Your task to perform on an android device: delete location history Image 0: 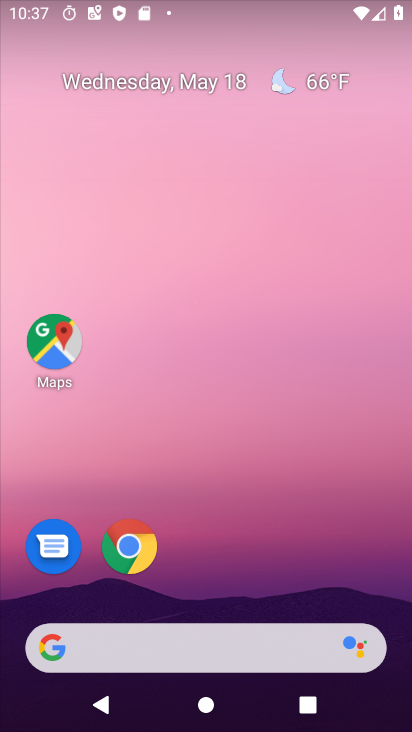
Step 0: click (47, 361)
Your task to perform on an android device: delete location history Image 1: 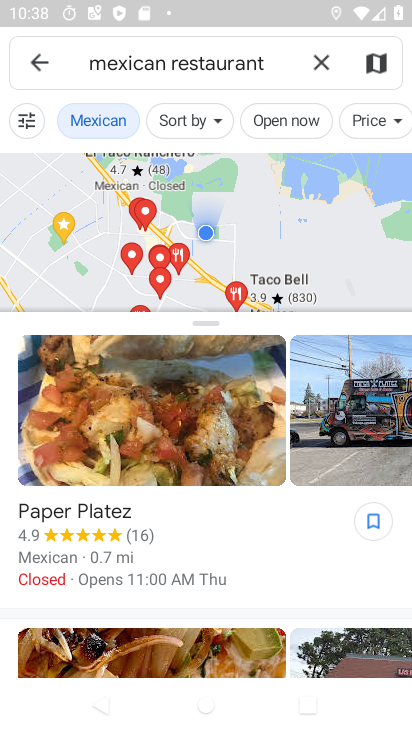
Step 1: click (29, 58)
Your task to perform on an android device: delete location history Image 2: 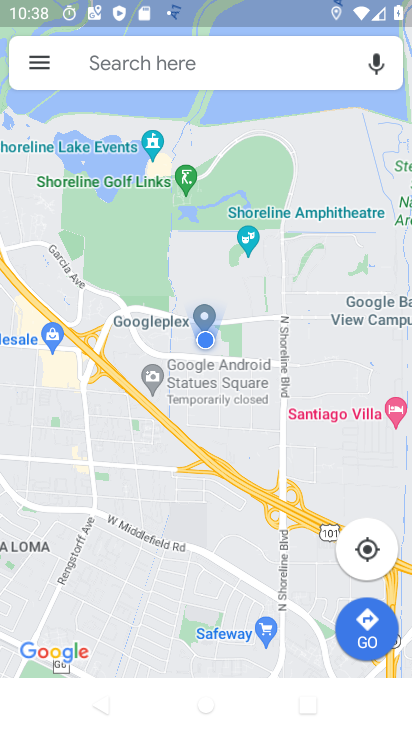
Step 2: click (29, 58)
Your task to perform on an android device: delete location history Image 3: 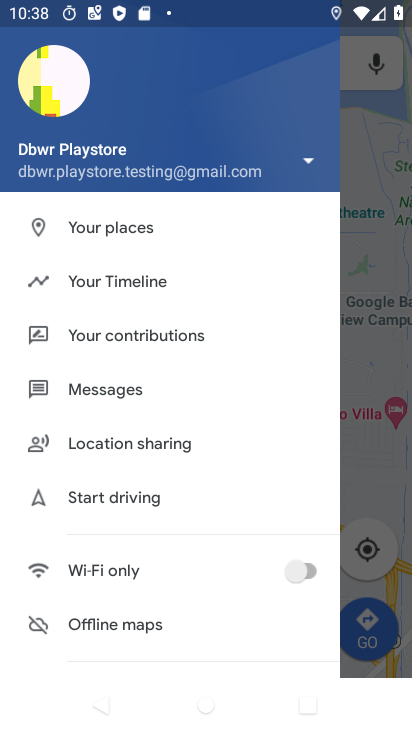
Step 3: drag from (146, 574) to (173, 188)
Your task to perform on an android device: delete location history Image 4: 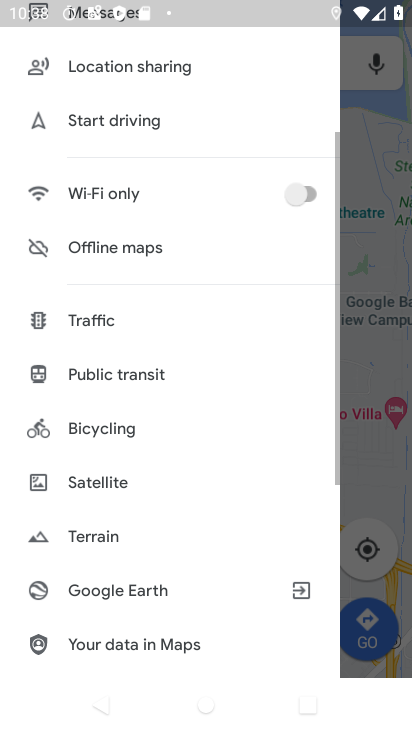
Step 4: drag from (165, 102) to (183, 453)
Your task to perform on an android device: delete location history Image 5: 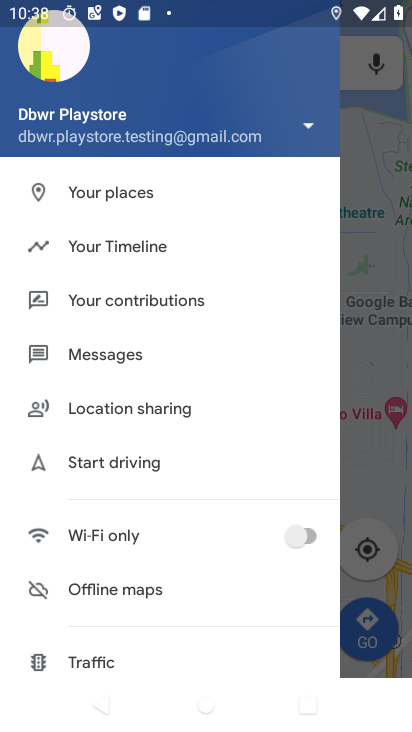
Step 5: click (93, 251)
Your task to perform on an android device: delete location history Image 6: 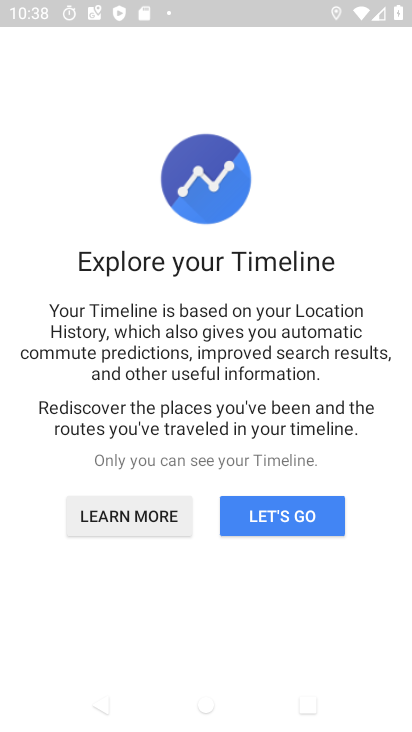
Step 6: click (311, 509)
Your task to perform on an android device: delete location history Image 7: 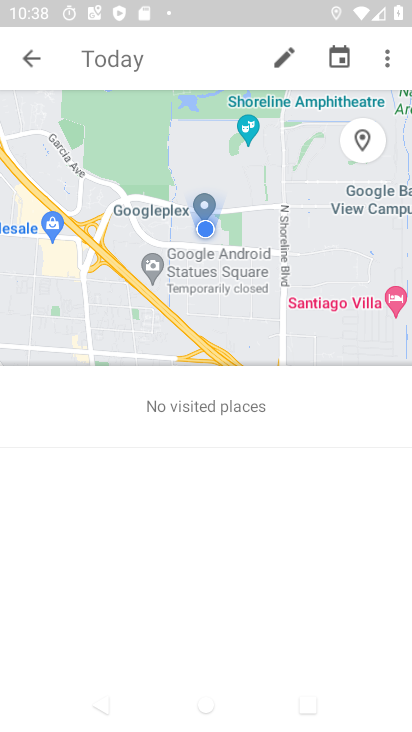
Step 7: click (379, 49)
Your task to perform on an android device: delete location history Image 8: 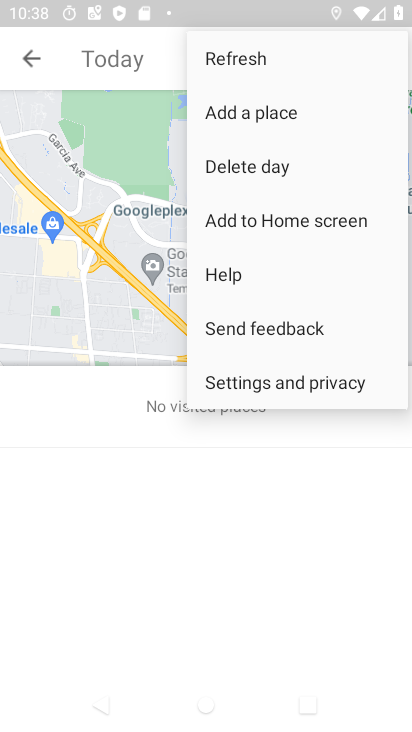
Step 8: click (251, 379)
Your task to perform on an android device: delete location history Image 9: 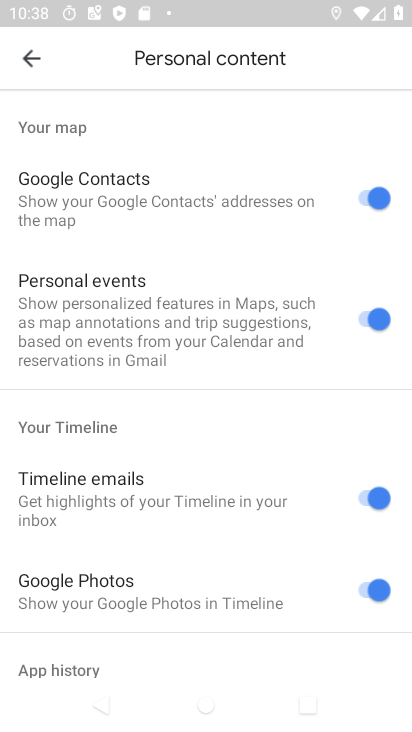
Step 9: drag from (130, 606) to (206, 169)
Your task to perform on an android device: delete location history Image 10: 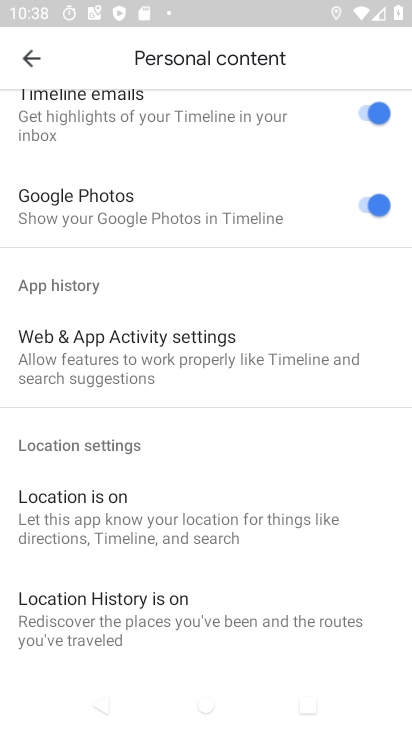
Step 10: drag from (176, 600) to (216, 239)
Your task to perform on an android device: delete location history Image 11: 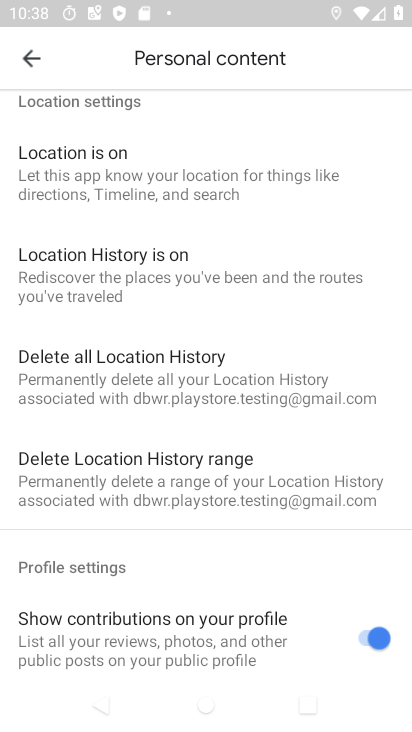
Step 11: click (132, 366)
Your task to perform on an android device: delete location history Image 12: 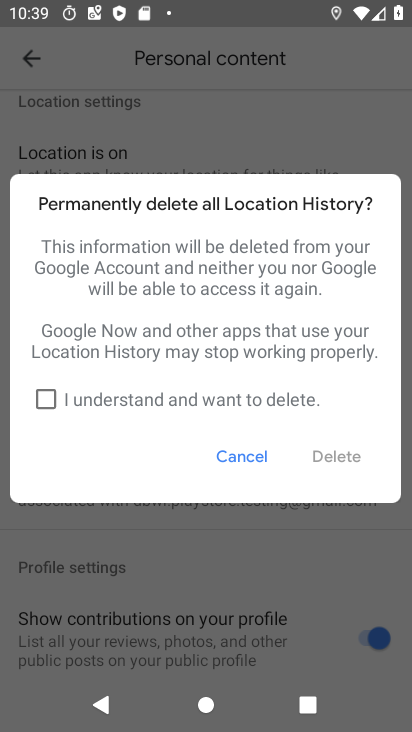
Step 12: click (40, 399)
Your task to perform on an android device: delete location history Image 13: 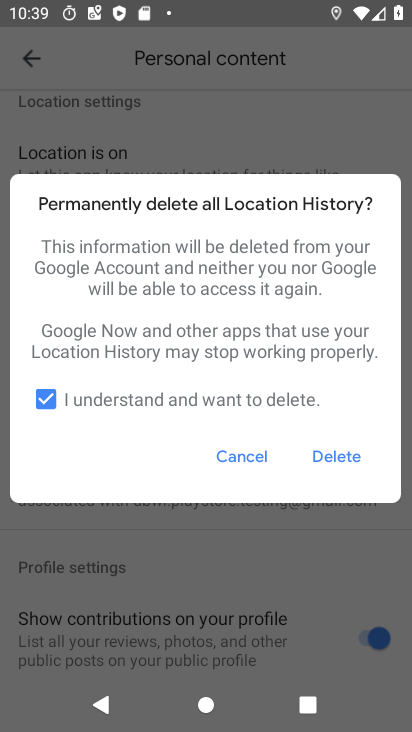
Step 13: click (352, 456)
Your task to perform on an android device: delete location history Image 14: 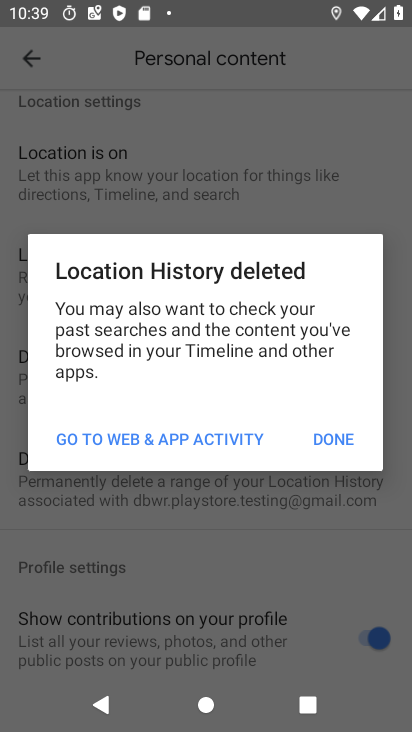
Step 14: click (352, 456)
Your task to perform on an android device: delete location history Image 15: 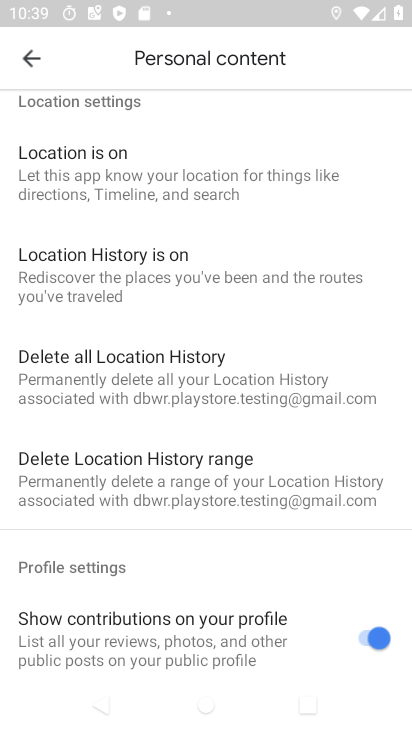
Step 15: task complete